Your task to perform on an android device: read, delete, or share a saved page in the chrome app Image 0: 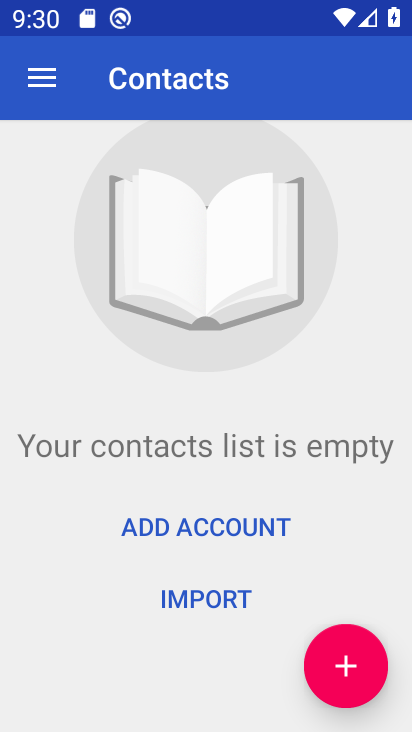
Step 0: press home button
Your task to perform on an android device: read, delete, or share a saved page in the chrome app Image 1: 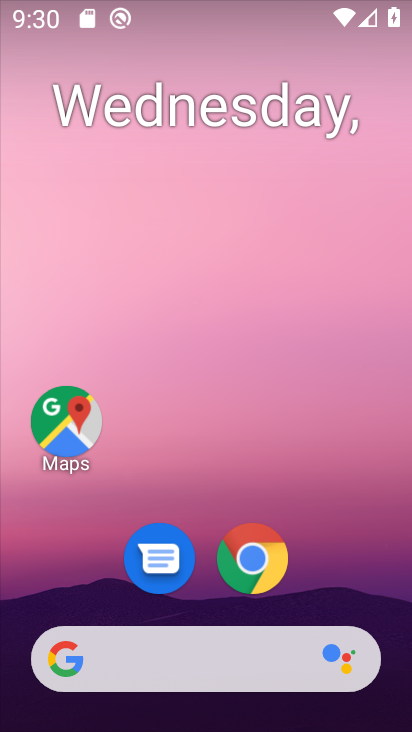
Step 1: drag from (367, 596) to (343, 122)
Your task to perform on an android device: read, delete, or share a saved page in the chrome app Image 2: 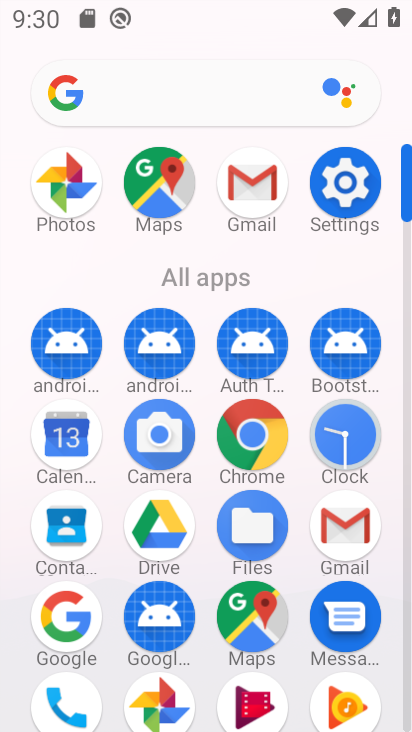
Step 2: click (261, 429)
Your task to perform on an android device: read, delete, or share a saved page in the chrome app Image 3: 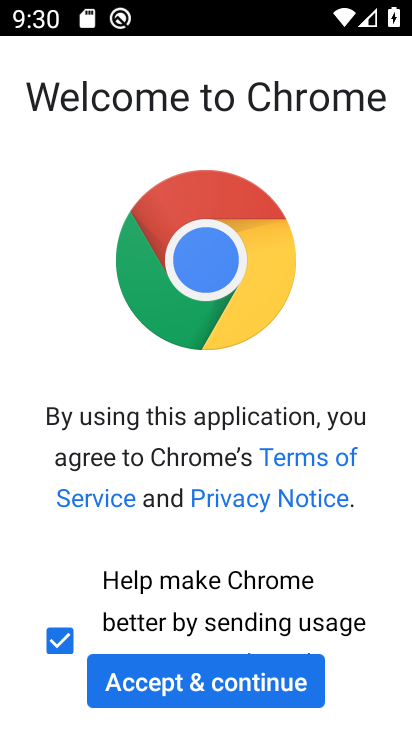
Step 3: click (188, 674)
Your task to perform on an android device: read, delete, or share a saved page in the chrome app Image 4: 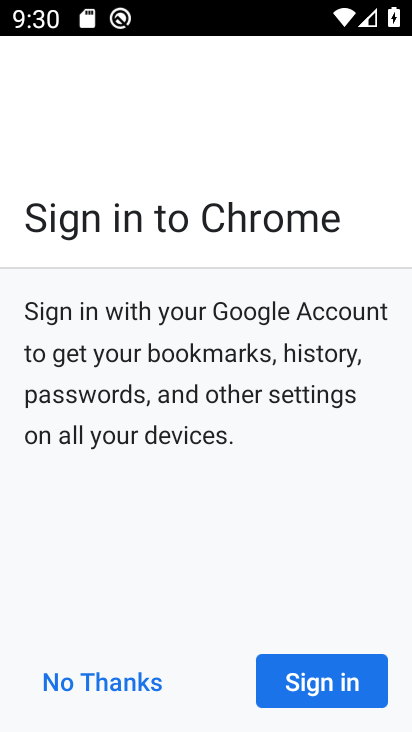
Step 4: click (165, 686)
Your task to perform on an android device: read, delete, or share a saved page in the chrome app Image 5: 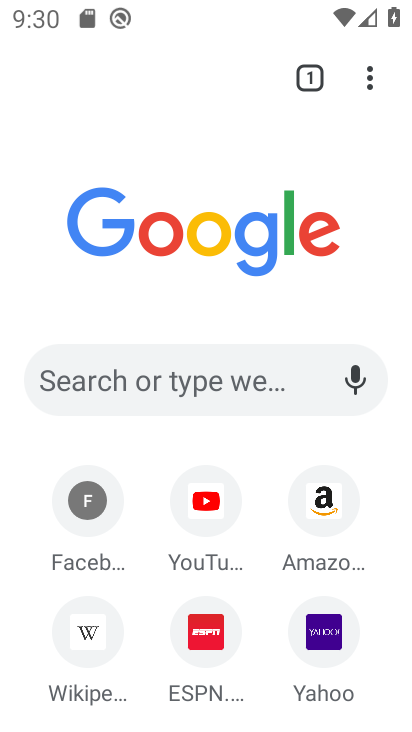
Step 5: click (366, 84)
Your task to perform on an android device: read, delete, or share a saved page in the chrome app Image 6: 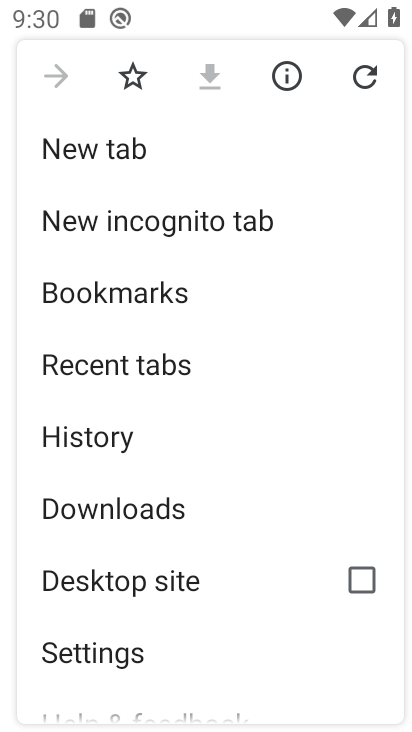
Step 6: drag from (303, 386) to (315, 316)
Your task to perform on an android device: read, delete, or share a saved page in the chrome app Image 7: 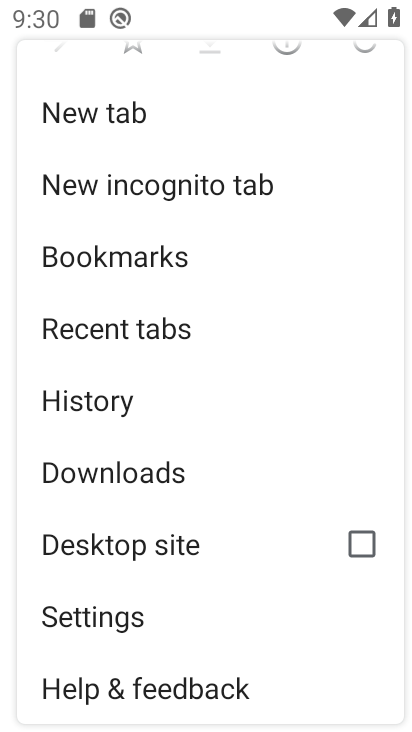
Step 7: click (213, 464)
Your task to perform on an android device: read, delete, or share a saved page in the chrome app Image 8: 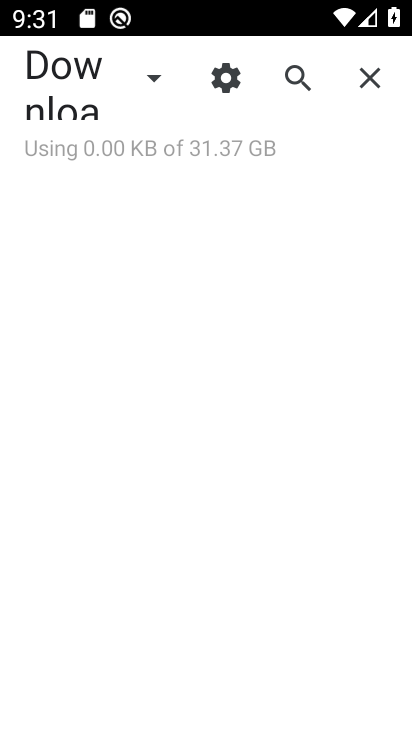
Step 8: click (156, 78)
Your task to perform on an android device: read, delete, or share a saved page in the chrome app Image 9: 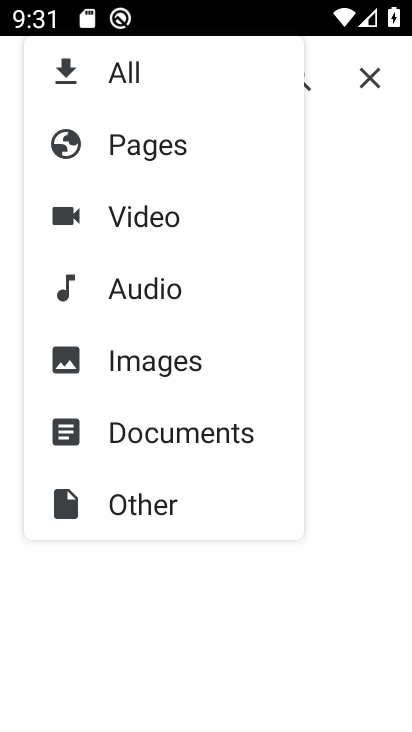
Step 9: click (140, 139)
Your task to perform on an android device: read, delete, or share a saved page in the chrome app Image 10: 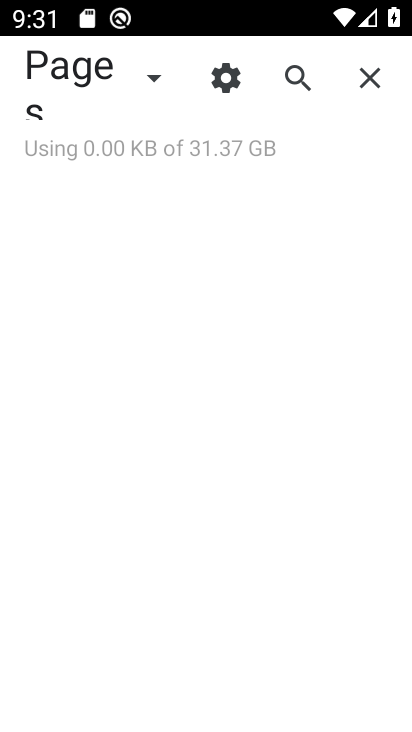
Step 10: task complete